Your task to perform on an android device: Show me popular videos on Youtube Image 0: 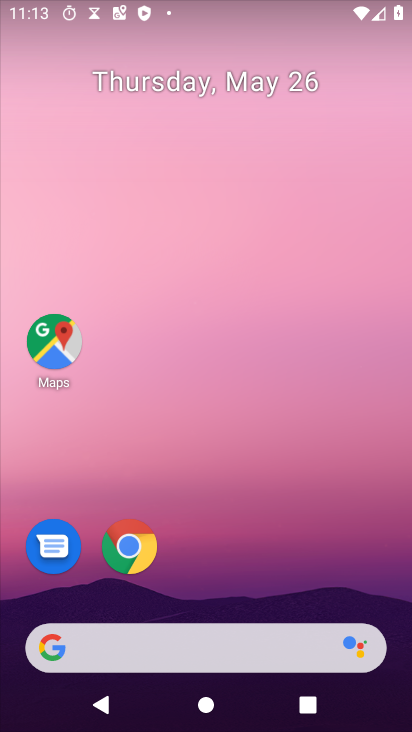
Step 0: drag from (347, 571) to (366, 222)
Your task to perform on an android device: Show me popular videos on Youtube Image 1: 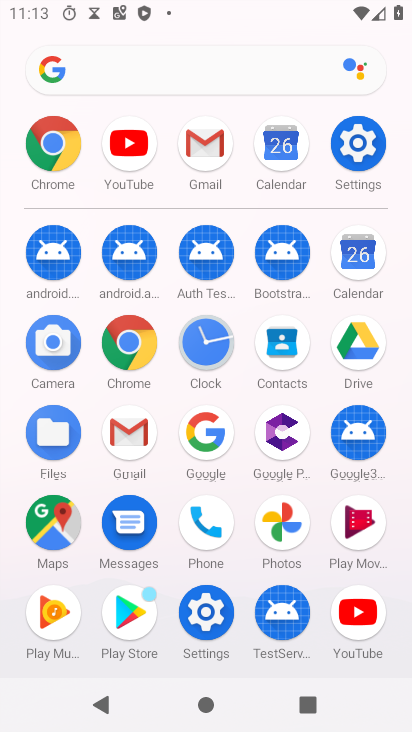
Step 1: click (353, 622)
Your task to perform on an android device: Show me popular videos on Youtube Image 2: 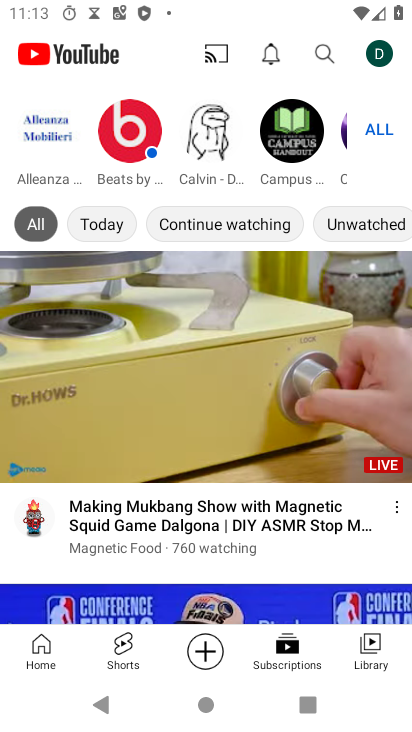
Step 2: task complete